Your task to perform on an android device: Go to Yahoo.com Image 0: 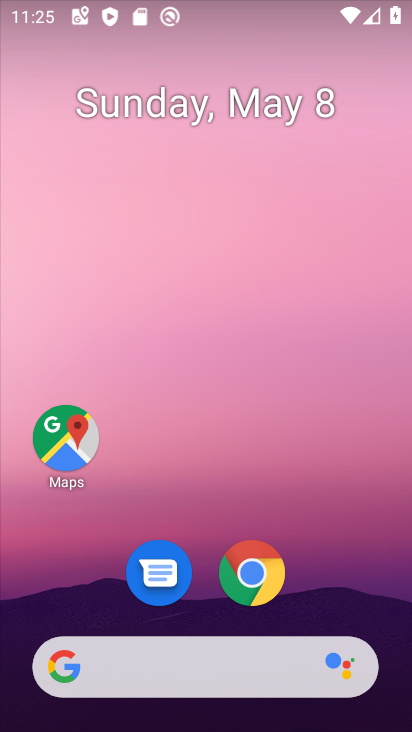
Step 0: drag from (310, 550) to (251, 34)
Your task to perform on an android device: Go to Yahoo.com Image 1: 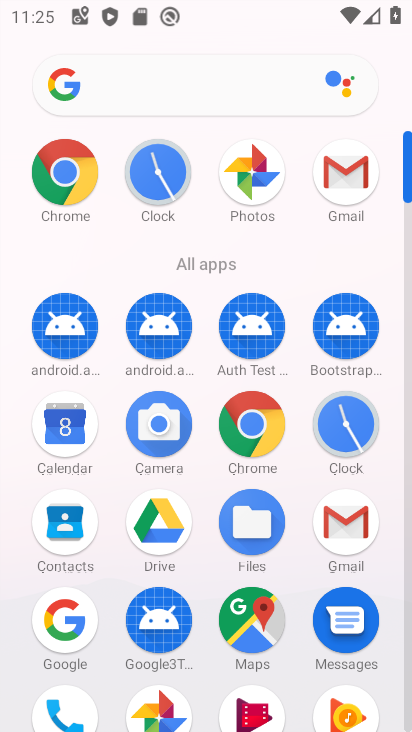
Step 1: click (64, 172)
Your task to perform on an android device: Go to Yahoo.com Image 2: 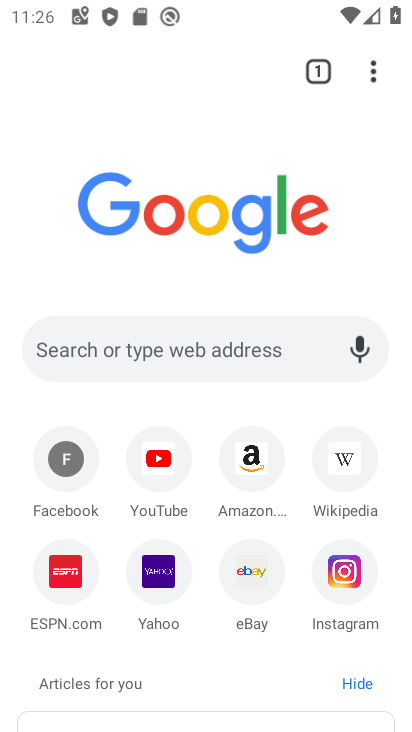
Step 2: click (146, 572)
Your task to perform on an android device: Go to Yahoo.com Image 3: 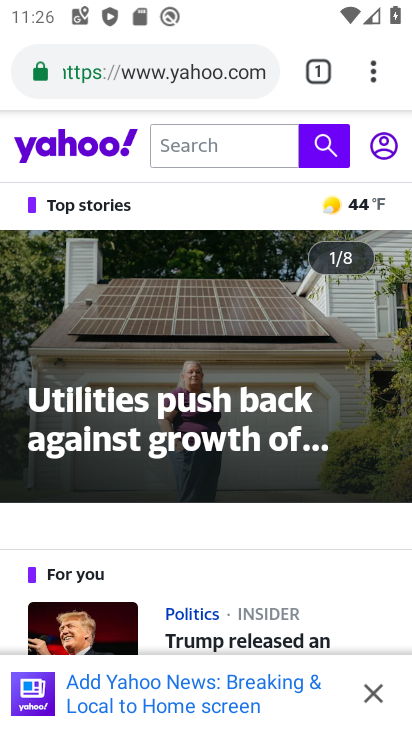
Step 3: task complete